Your task to perform on an android device: Is it going to rain this weekend? Image 0: 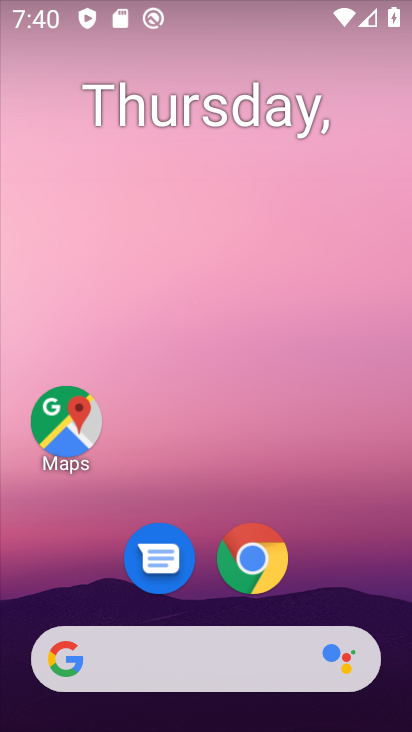
Step 0: drag from (196, 628) to (222, 83)
Your task to perform on an android device: Is it going to rain this weekend? Image 1: 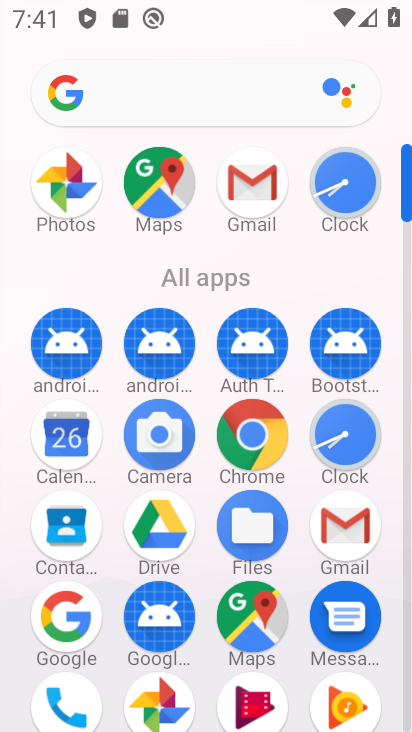
Step 1: click (66, 613)
Your task to perform on an android device: Is it going to rain this weekend? Image 2: 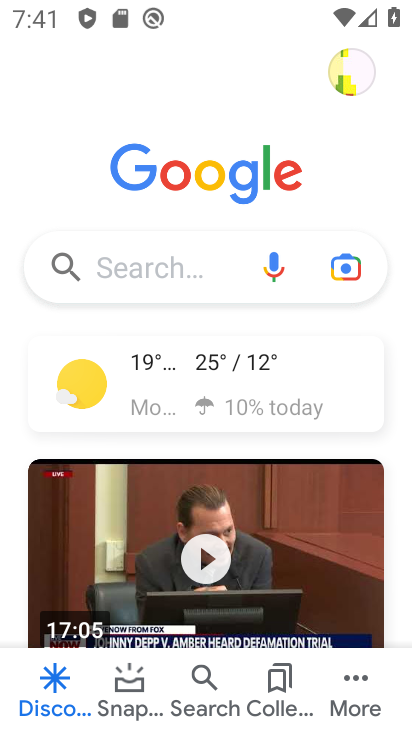
Step 2: click (207, 284)
Your task to perform on an android device: Is it going to rain this weekend? Image 3: 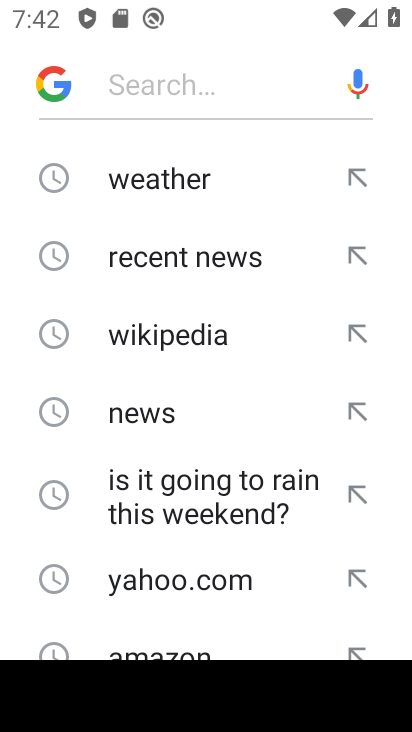
Step 3: click (192, 491)
Your task to perform on an android device: Is it going to rain this weekend? Image 4: 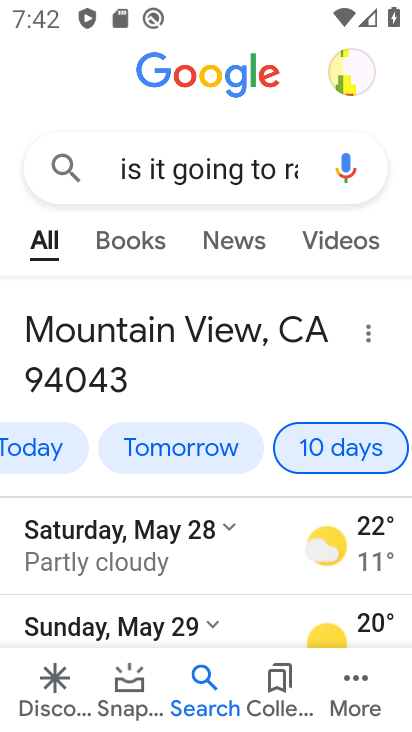
Step 4: task complete